Your task to perform on an android device: find which apps use the phone's location Image 0: 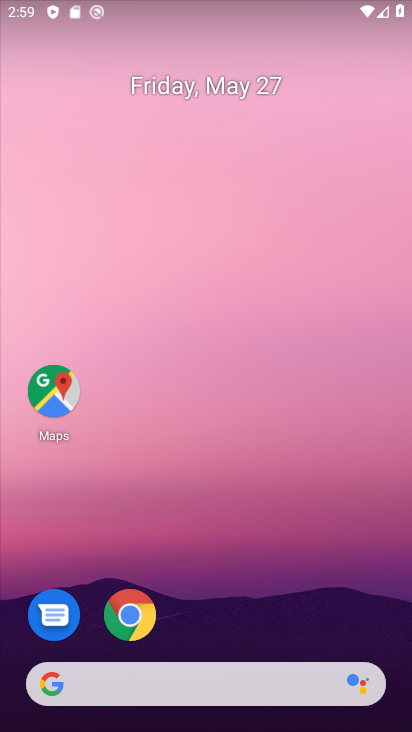
Step 0: click (146, 617)
Your task to perform on an android device: find which apps use the phone's location Image 1: 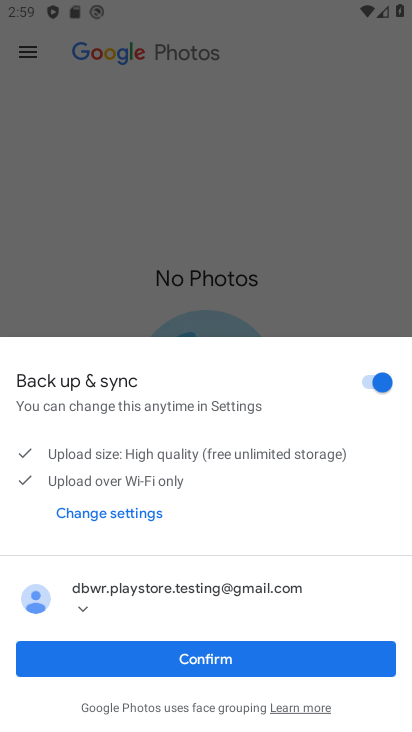
Step 1: click (292, 655)
Your task to perform on an android device: find which apps use the phone's location Image 2: 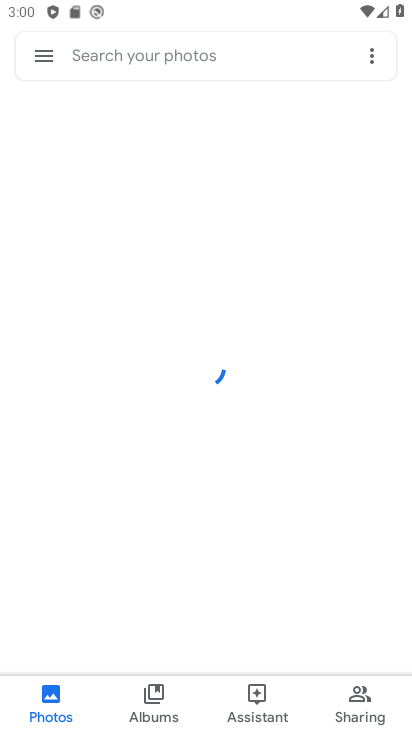
Step 2: press home button
Your task to perform on an android device: find which apps use the phone's location Image 3: 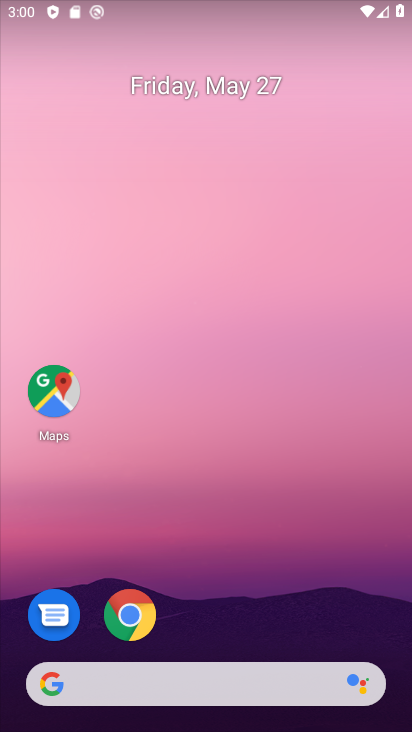
Step 3: drag from (111, 731) to (209, 2)
Your task to perform on an android device: find which apps use the phone's location Image 4: 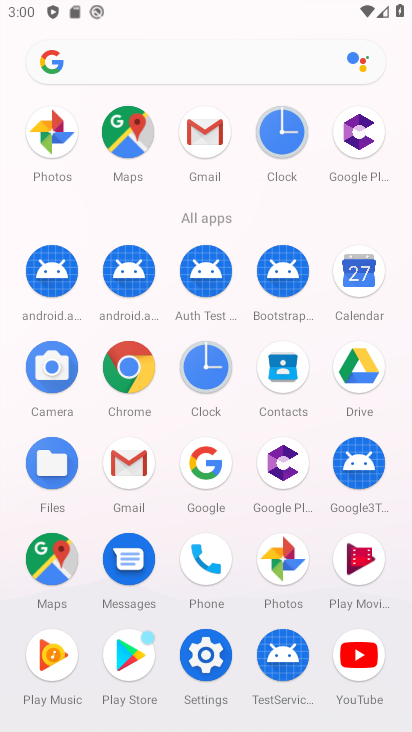
Step 4: click (201, 670)
Your task to perform on an android device: find which apps use the phone's location Image 5: 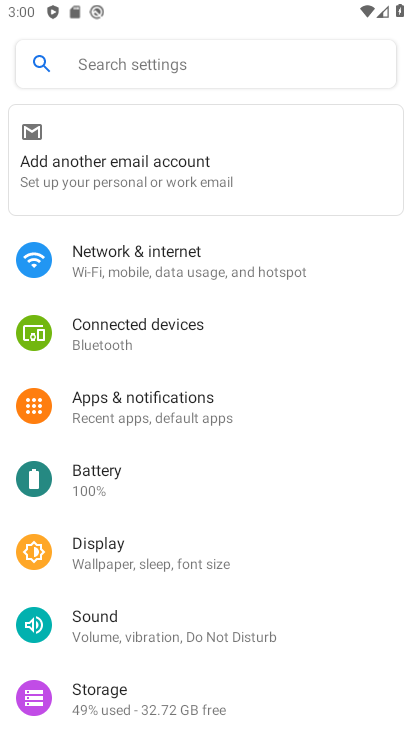
Step 5: drag from (213, 637) to (237, 205)
Your task to perform on an android device: find which apps use the phone's location Image 6: 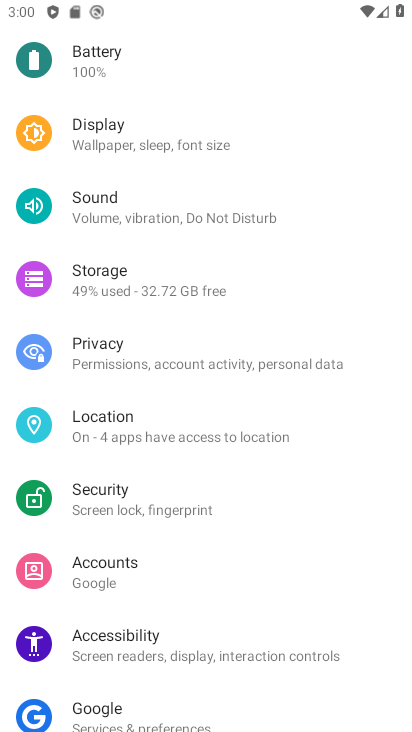
Step 6: click (217, 441)
Your task to perform on an android device: find which apps use the phone's location Image 7: 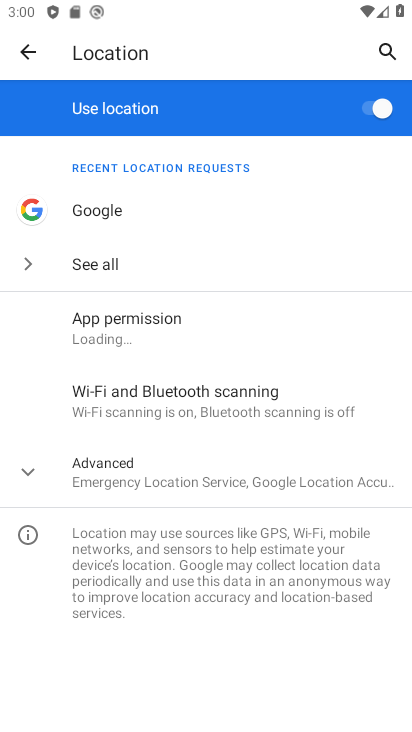
Step 7: click (197, 336)
Your task to perform on an android device: find which apps use the phone's location Image 8: 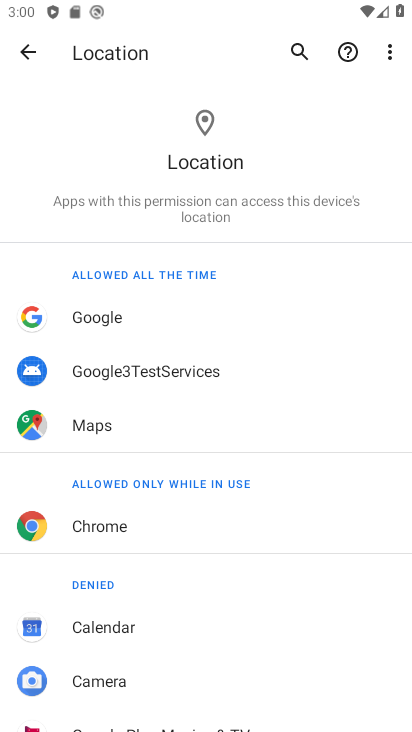
Step 8: task complete